Your task to perform on an android device: move a message to another label in the gmail app Image 0: 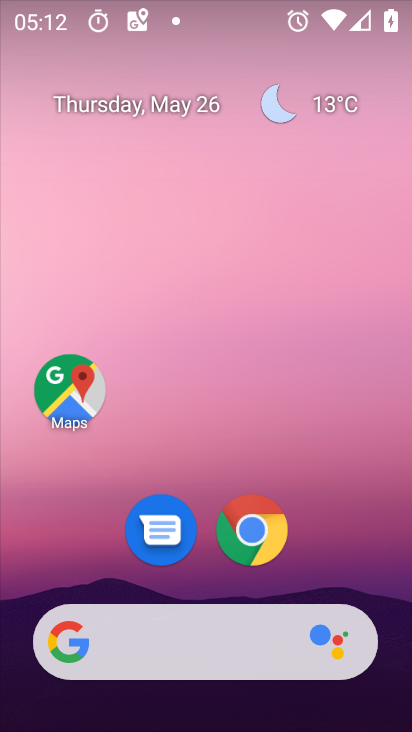
Step 0: drag from (275, 661) to (326, 5)
Your task to perform on an android device: move a message to another label in the gmail app Image 1: 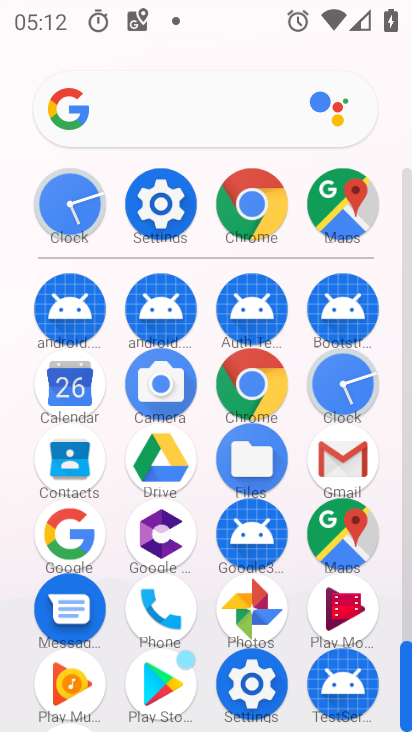
Step 1: click (331, 461)
Your task to perform on an android device: move a message to another label in the gmail app Image 2: 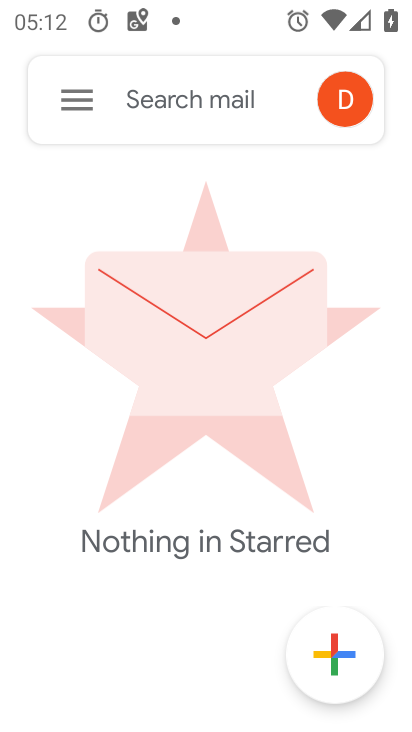
Step 2: click (78, 98)
Your task to perform on an android device: move a message to another label in the gmail app Image 3: 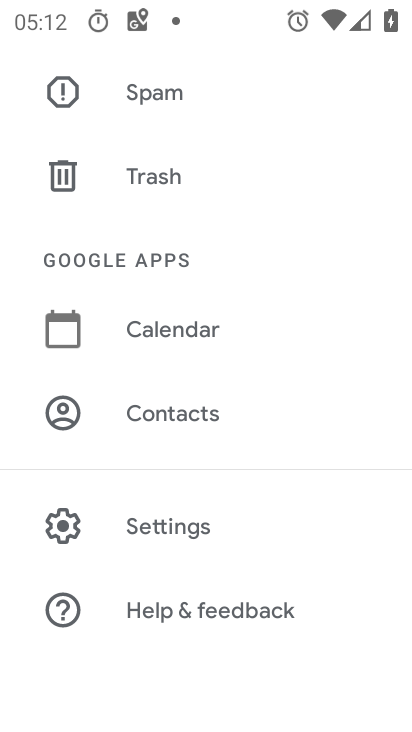
Step 3: drag from (265, 108) to (268, 606)
Your task to perform on an android device: move a message to another label in the gmail app Image 4: 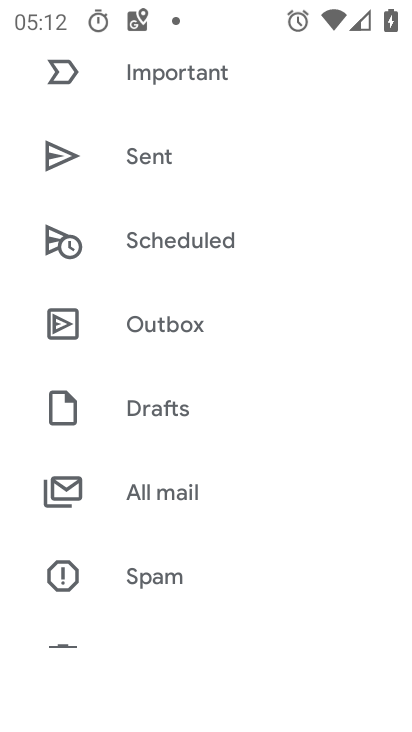
Step 4: drag from (204, 133) to (209, 620)
Your task to perform on an android device: move a message to another label in the gmail app Image 5: 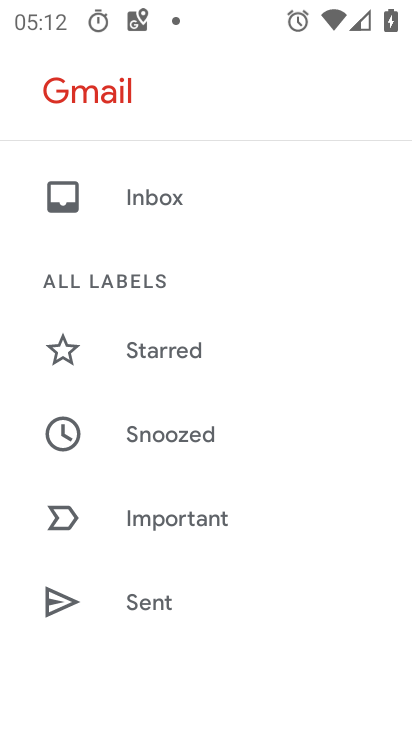
Step 5: click (203, 187)
Your task to perform on an android device: move a message to another label in the gmail app Image 6: 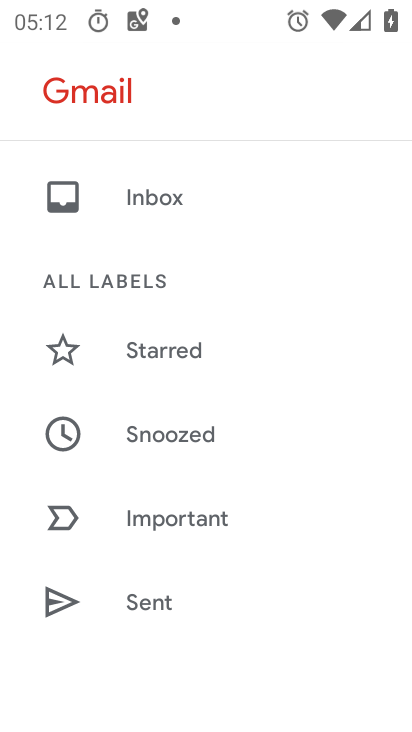
Step 6: click (178, 202)
Your task to perform on an android device: move a message to another label in the gmail app Image 7: 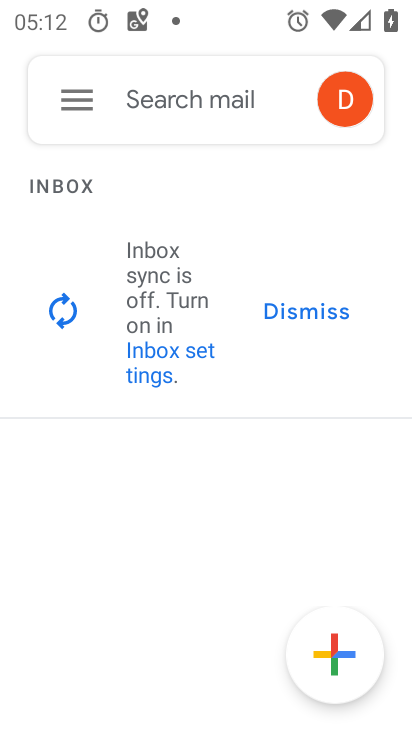
Step 7: task complete